Your task to perform on an android device: When is my next appointment? Image 0: 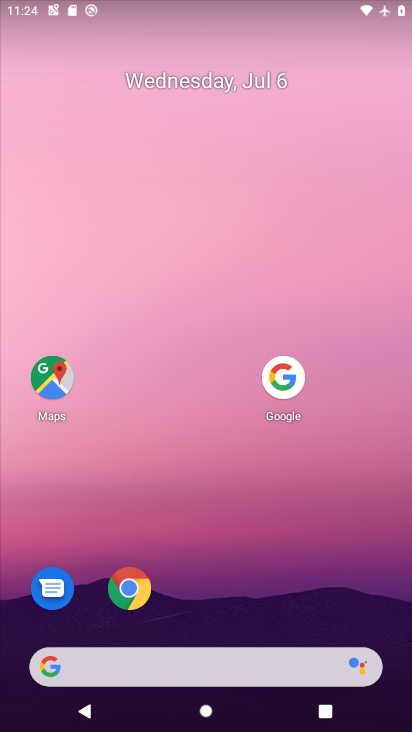
Step 0: drag from (161, 616) to (314, 26)
Your task to perform on an android device: When is my next appointment? Image 1: 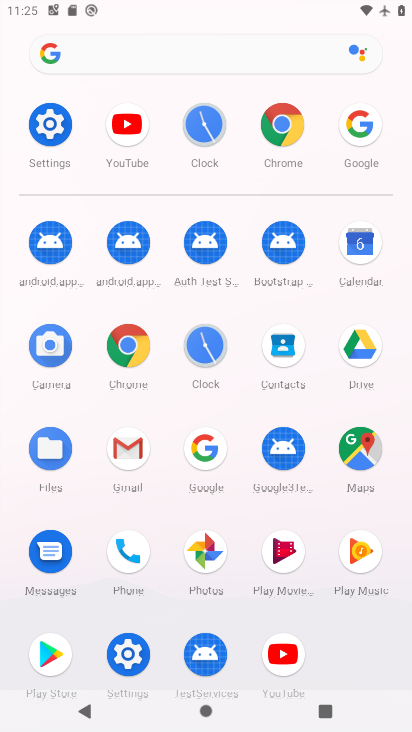
Step 1: click (363, 240)
Your task to perform on an android device: When is my next appointment? Image 2: 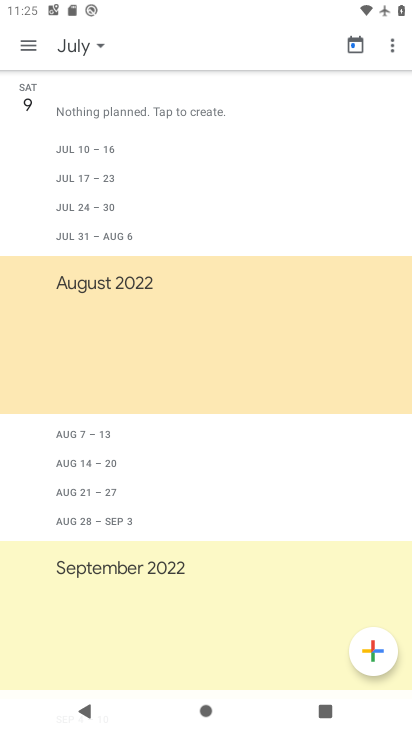
Step 2: click (29, 41)
Your task to perform on an android device: When is my next appointment? Image 3: 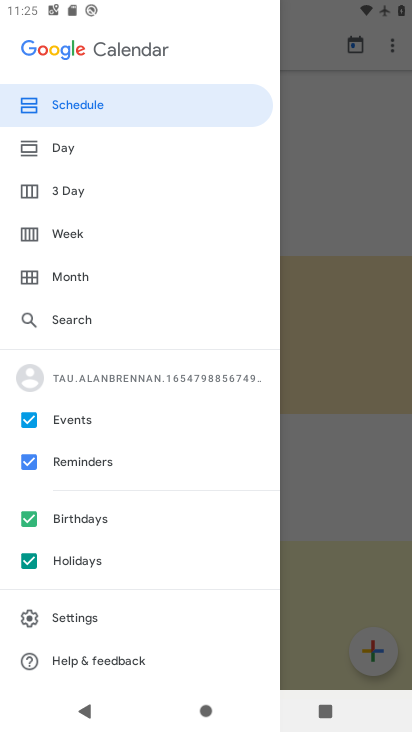
Step 3: click (27, 455)
Your task to perform on an android device: When is my next appointment? Image 4: 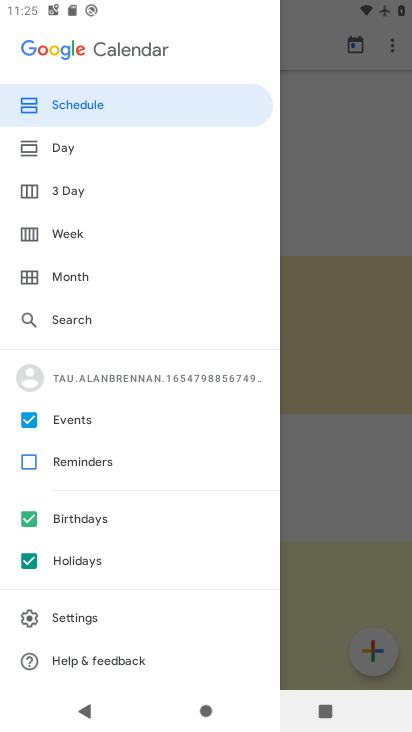
Step 4: click (29, 519)
Your task to perform on an android device: When is my next appointment? Image 5: 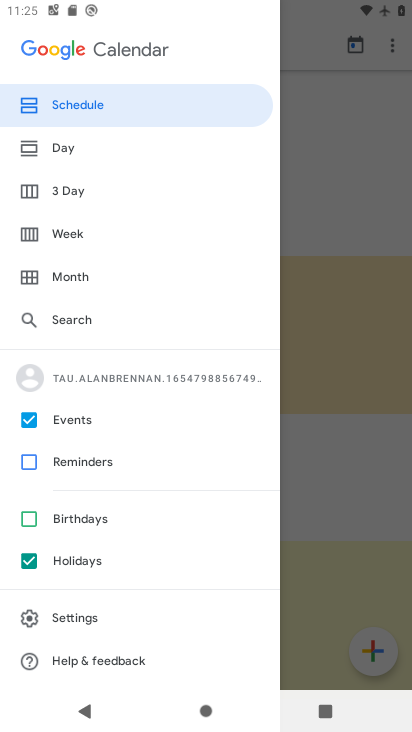
Step 5: click (31, 554)
Your task to perform on an android device: When is my next appointment? Image 6: 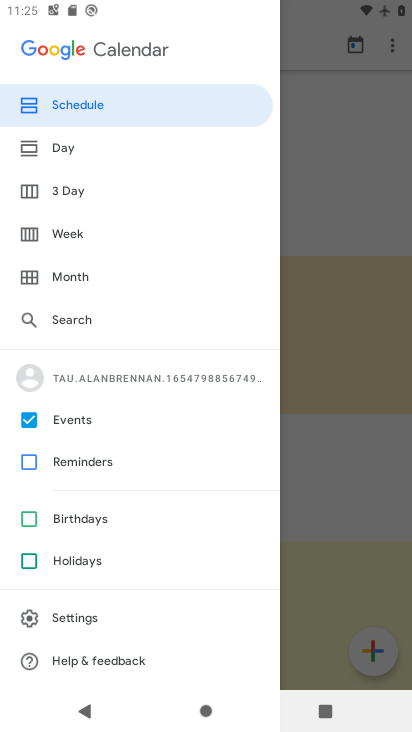
Step 6: click (61, 233)
Your task to perform on an android device: When is my next appointment? Image 7: 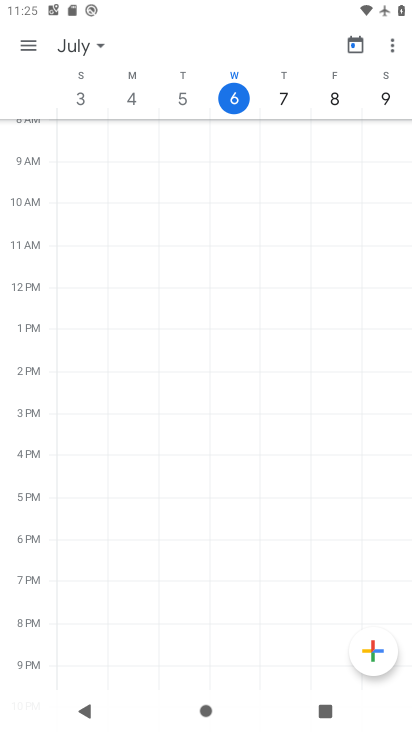
Step 7: click (36, 45)
Your task to perform on an android device: When is my next appointment? Image 8: 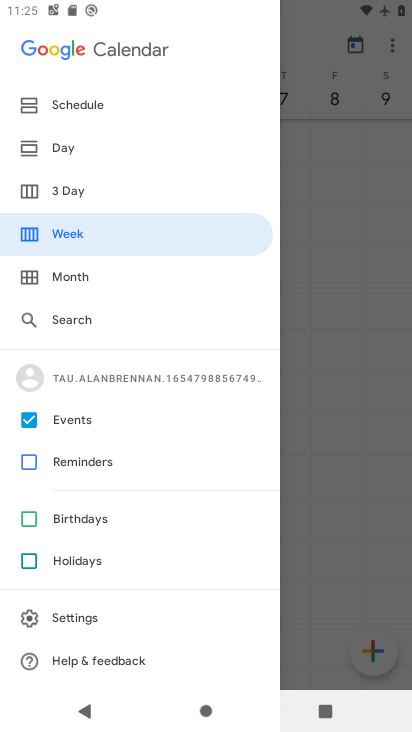
Step 8: task complete